Your task to perform on an android device: toggle show notifications on the lock screen Image 0: 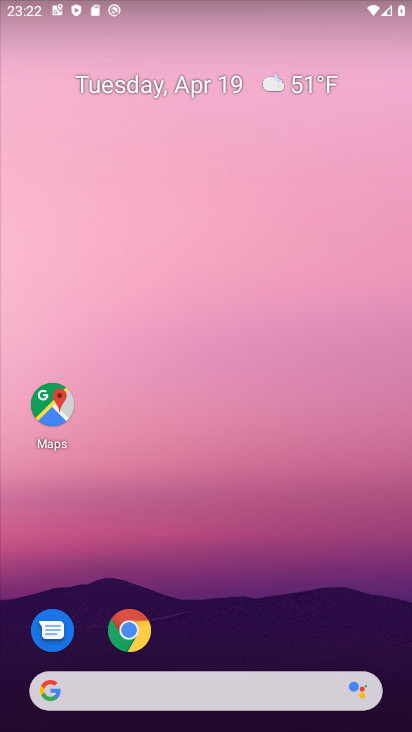
Step 0: drag from (365, 588) to (226, 150)
Your task to perform on an android device: toggle show notifications on the lock screen Image 1: 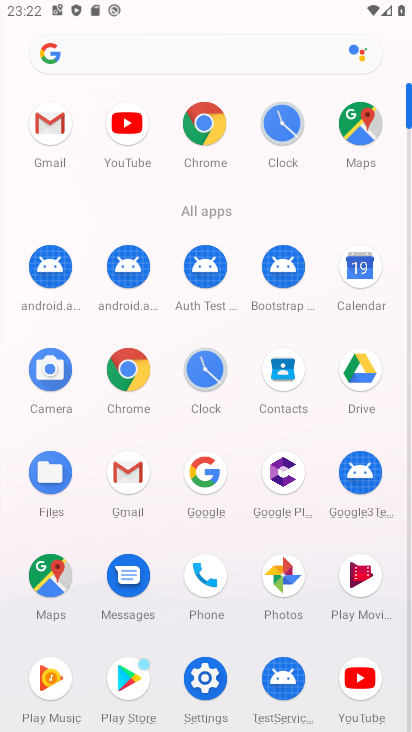
Step 1: click (204, 657)
Your task to perform on an android device: toggle show notifications on the lock screen Image 2: 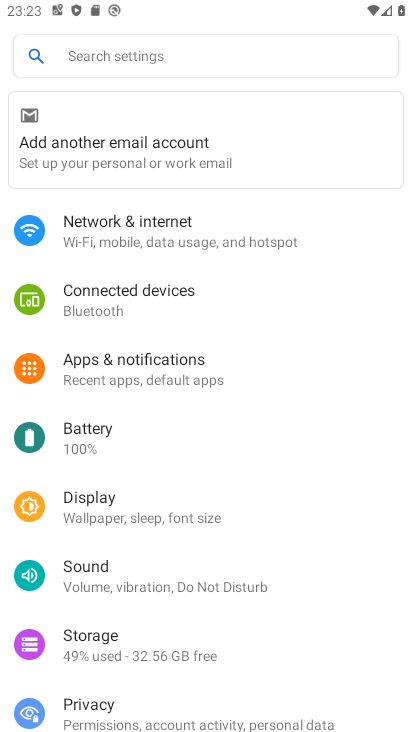
Step 2: click (94, 380)
Your task to perform on an android device: toggle show notifications on the lock screen Image 3: 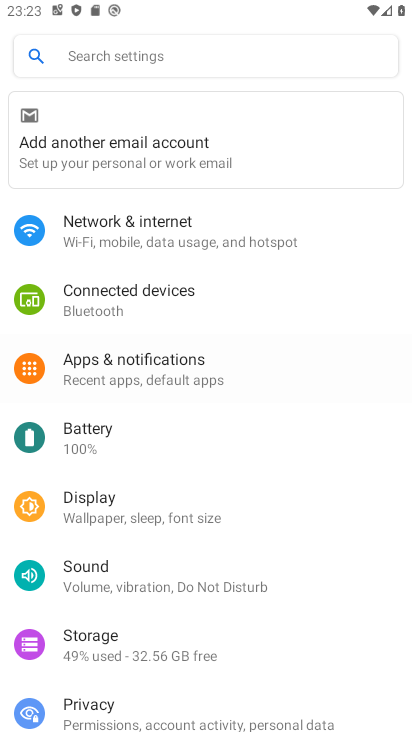
Step 3: click (94, 380)
Your task to perform on an android device: toggle show notifications on the lock screen Image 4: 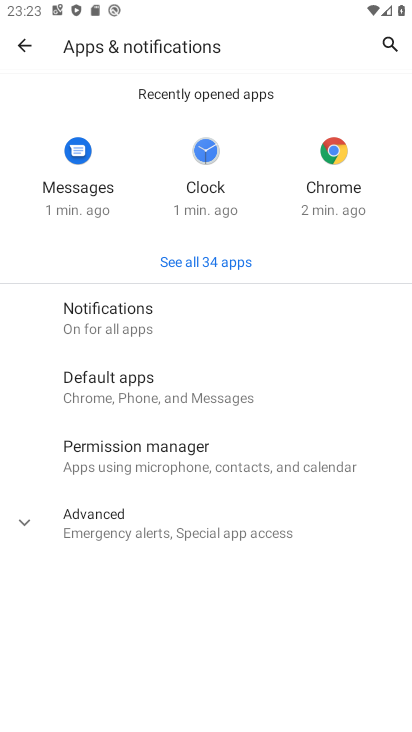
Step 4: click (112, 338)
Your task to perform on an android device: toggle show notifications on the lock screen Image 5: 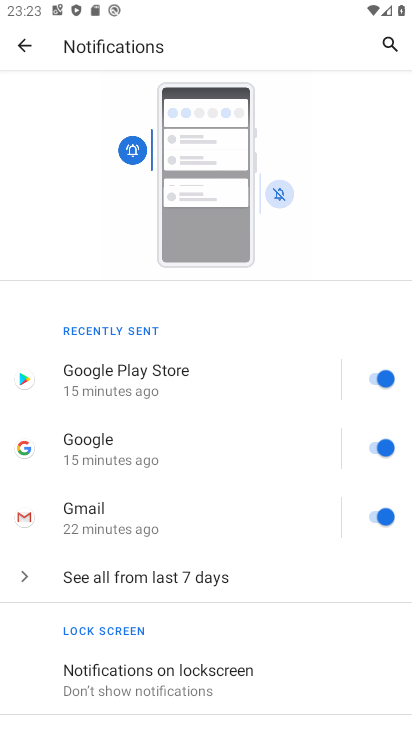
Step 5: click (163, 686)
Your task to perform on an android device: toggle show notifications on the lock screen Image 6: 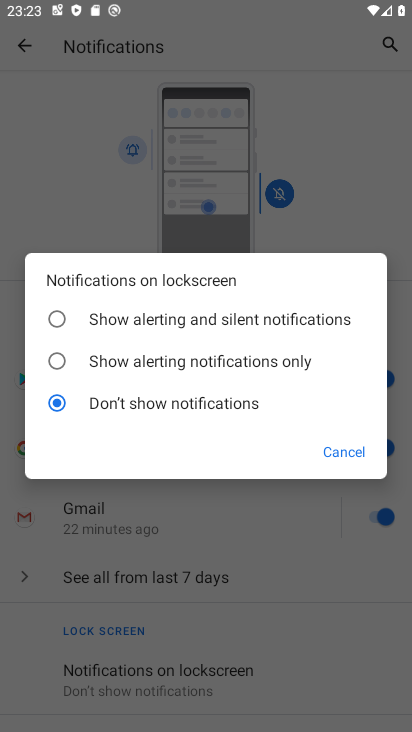
Step 6: click (149, 323)
Your task to perform on an android device: toggle show notifications on the lock screen Image 7: 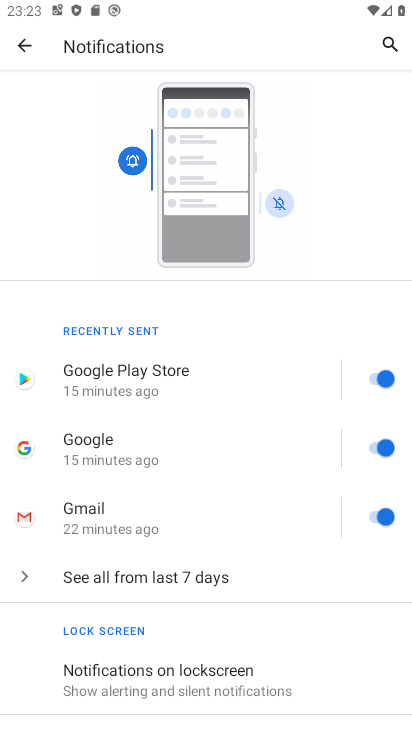
Step 7: task complete